Your task to perform on an android device: Open Yahoo.com Image 0: 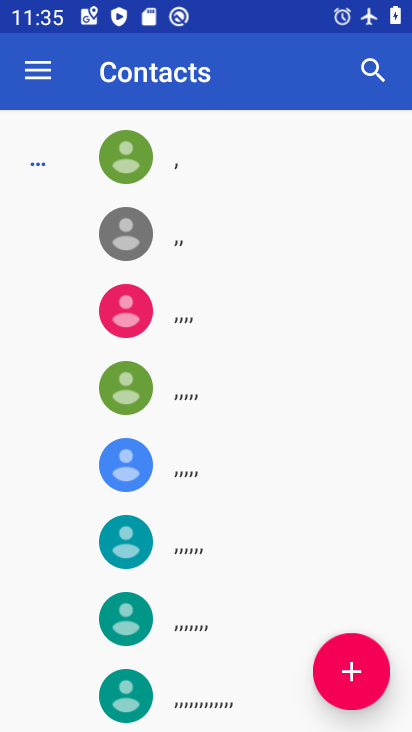
Step 0: press home button
Your task to perform on an android device: Open Yahoo.com Image 1: 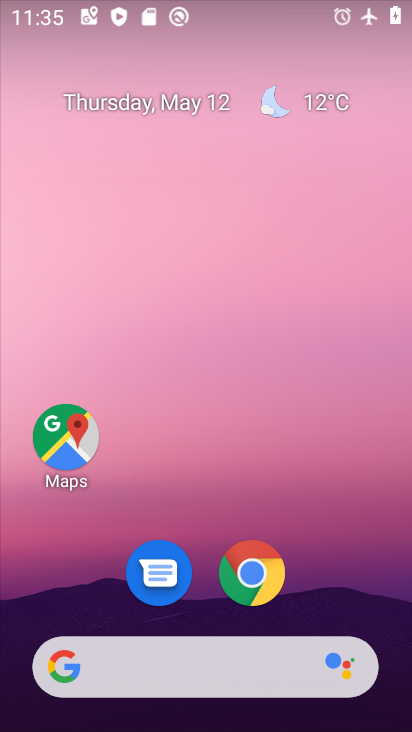
Step 1: click (163, 665)
Your task to perform on an android device: Open Yahoo.com Image 2: 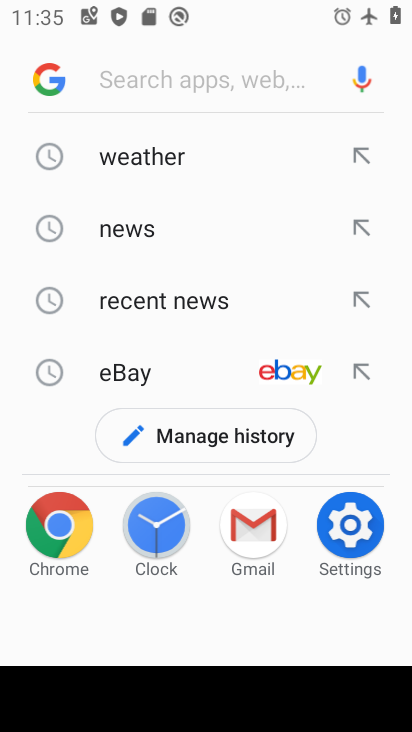
Step 2: type "yahoo.com"
Your task to perform on an android device: Open Yahoo.com Image 3: 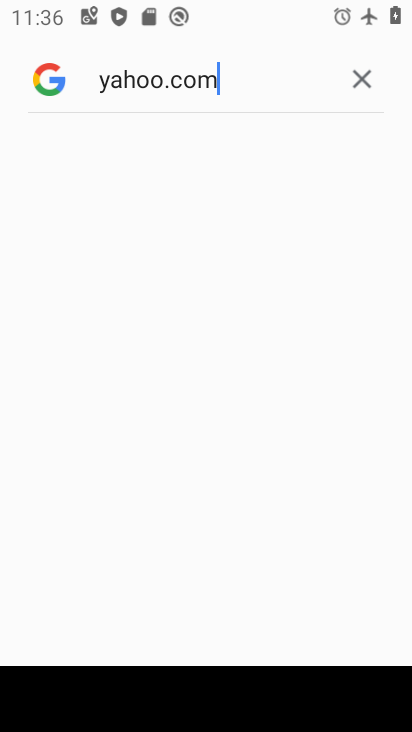
Step 3: task complete